Your task to perform on an android device: Search for Mexican restaurants on Maps Image 0: 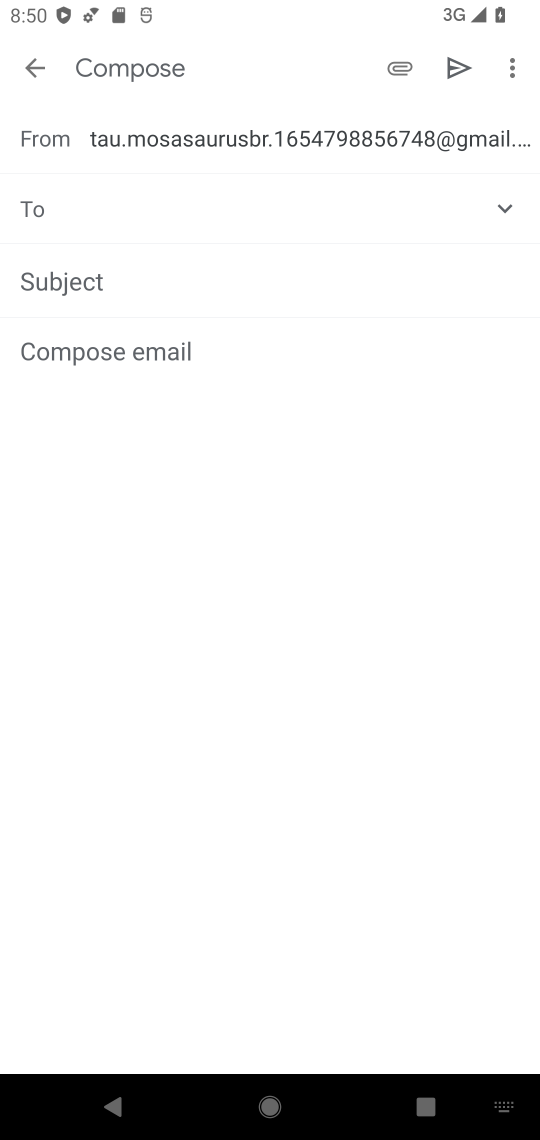
Step 0: press home button
Your task to perform on an android device: Search for Mexican restaurants on Maps Image 1: 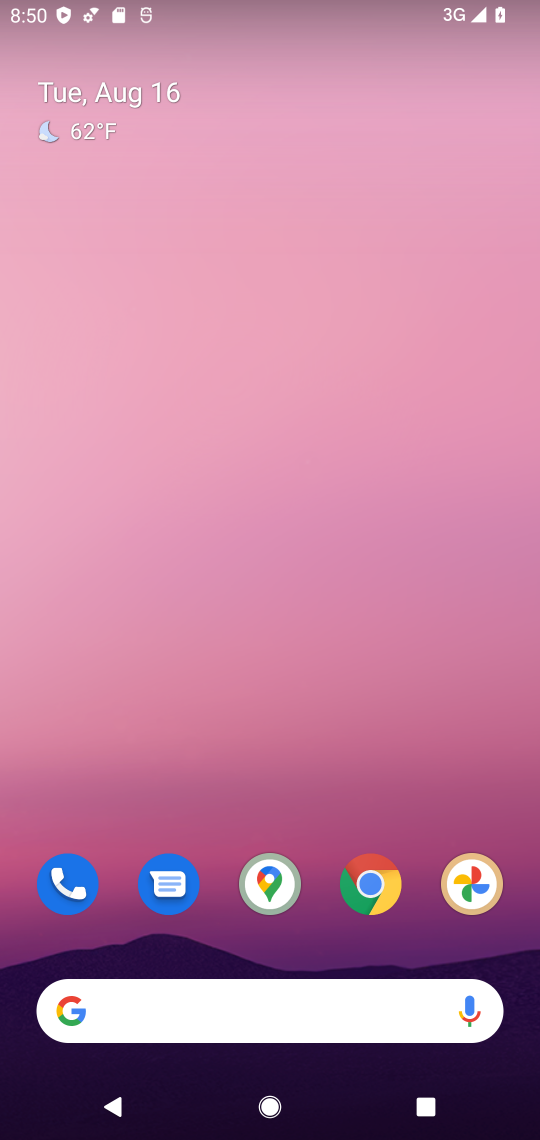
Step 1: click (271, 879)
Your task to perform on an android device: Search for Mexican restaurants on Maps Image 2: 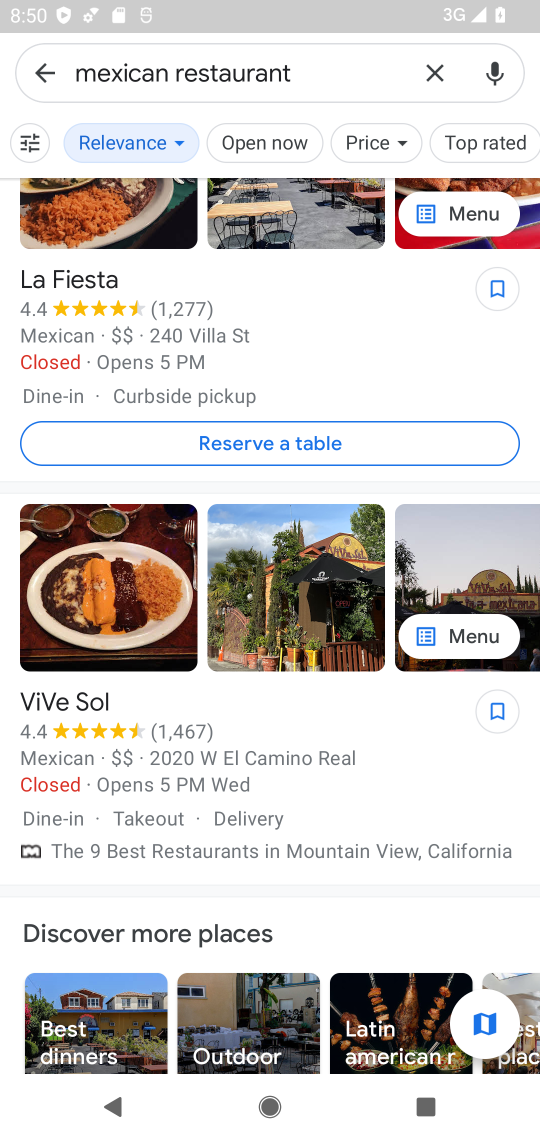
Step 2: task complete